Your task to perform on an android device: change alarm snooze length Image 0: 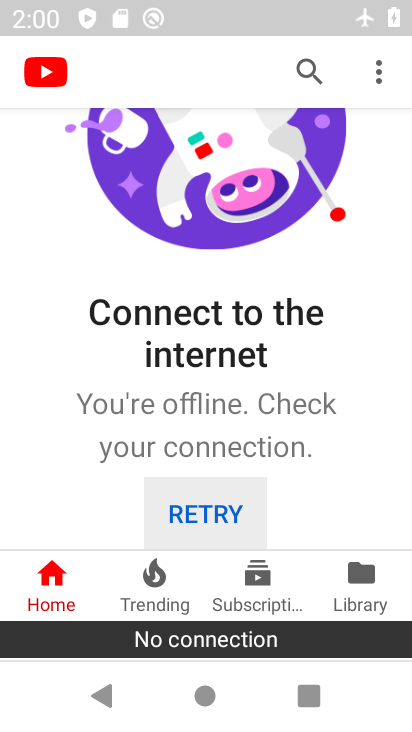
Step 0: press home button
Your task to perform on an android device: change alarm snooze length Image 1: 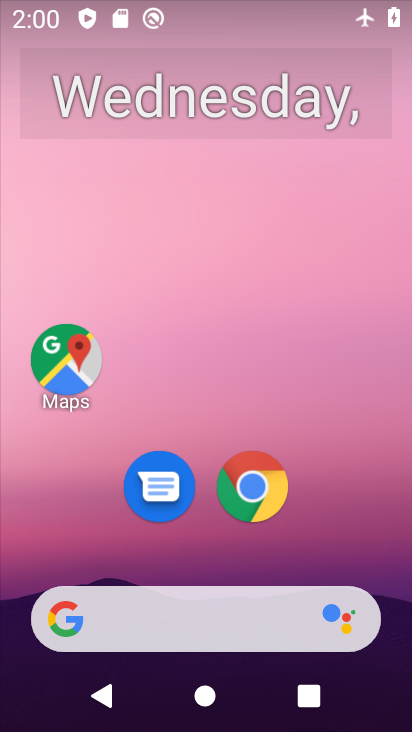
Step 1: drag from (259, 695) to (236, 53)
Your task to perform on an android device: change alarm snooze length Image 2: 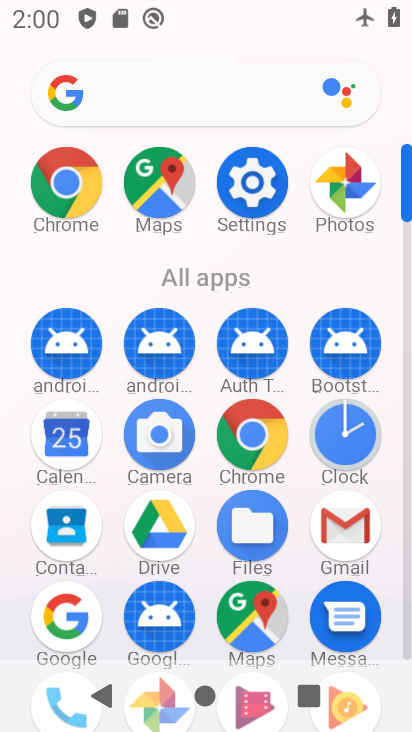
Step 2: click (361, 430)
Your task to perform on an android device: change alarm snooze length Image 3: 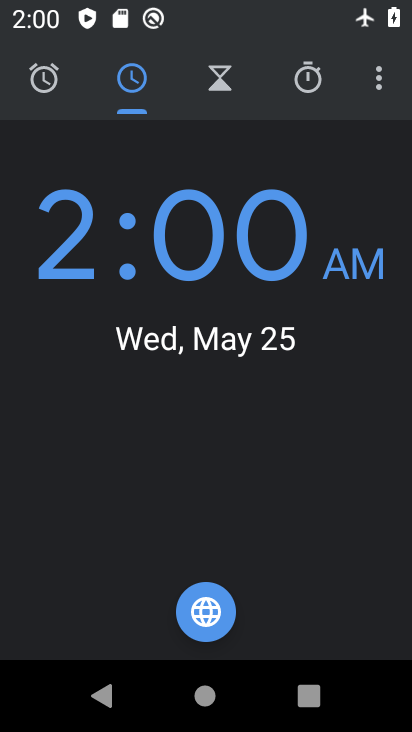
Step 3: click (385, 80)
Your task to perform on an android device: change alarm snooze length Image 4: 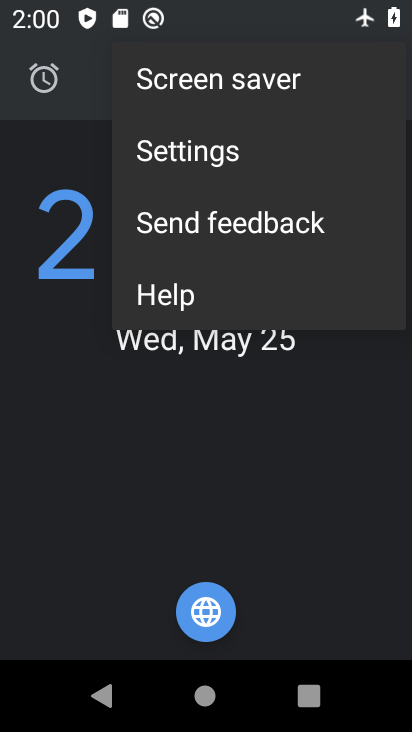
Step 4: click (226, 169)
Your task to perform on an android device: change alarm snooze length Image 5: 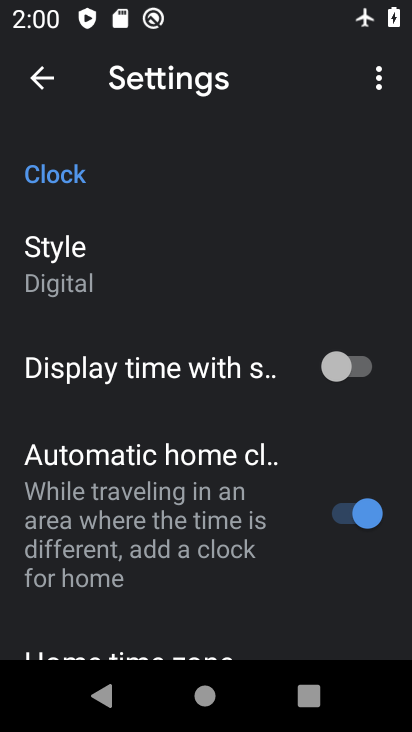
Step 5: drag from (242, 602) to (191, 42)
Your task to perform on an android device: change alarm snooze length Image 6: 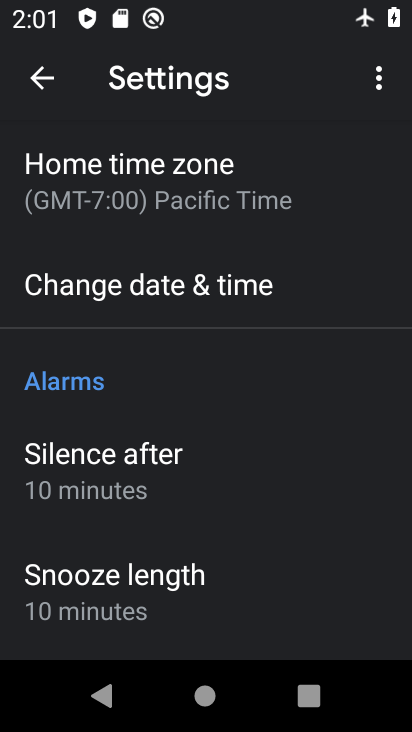
Step 6: click (122, 580)
Your task to perform on an android device: change alarm snooze length Image 7: 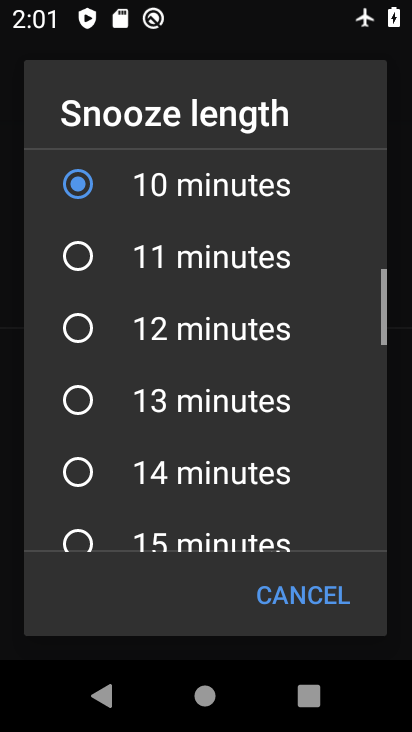
Step 7: click (183, 519)
Your task to perform on an android device: change alarm snooze length Image 8: 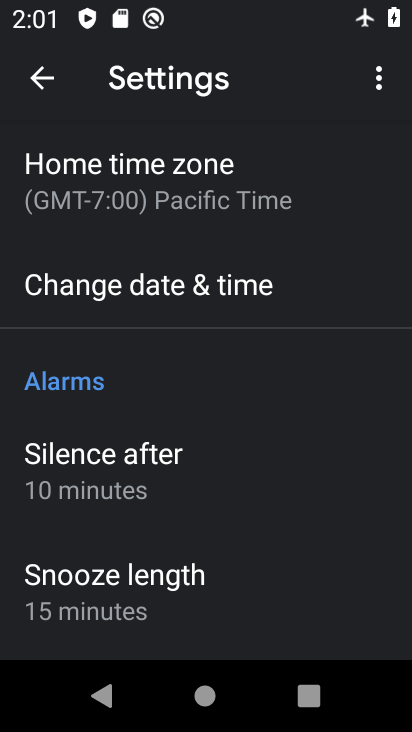
Step 8: task complete